Your task to perform on an android device: Search for vegetarian restaurants on Maps Image 0: 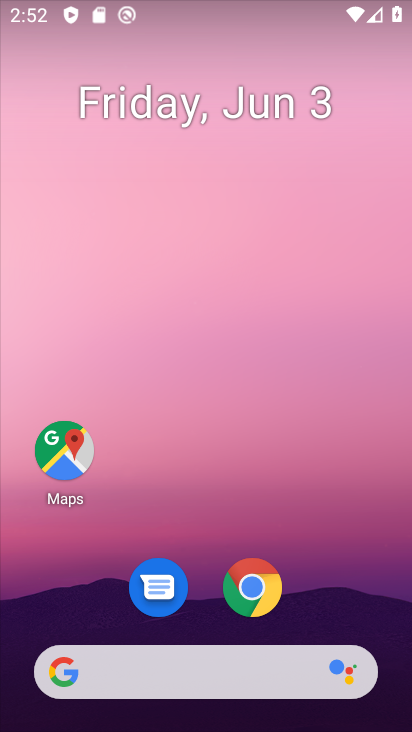
Step 0: drag from (212, 731) to (205, 82)
Your task to perform on an android device: Search for vegetarian restaurants on Maps Image 1: 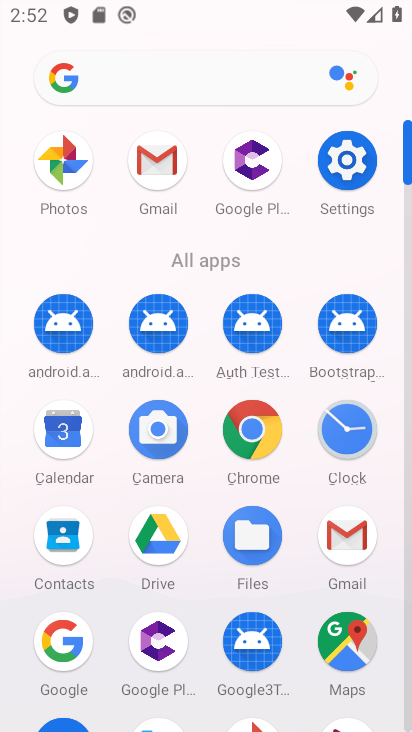
Step 1: click (356, 636)
Your task to perform on an android device: Search for vegetarian restaurants on Maps Image 2: 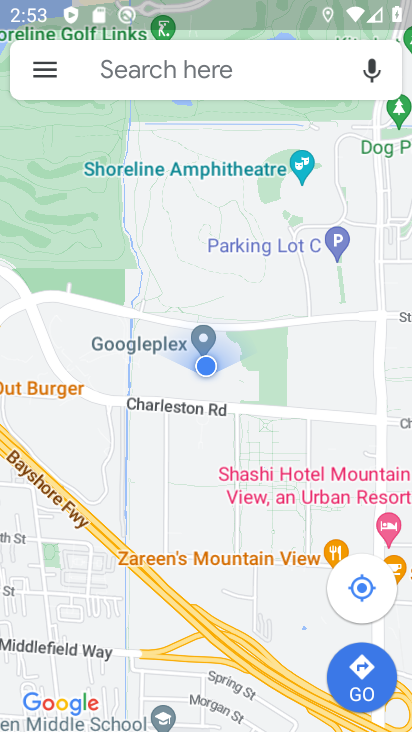
Step 2: click (225, 67)
Your task to perform on an android device: Search for vegetarian restaurants on Maps Image 3: 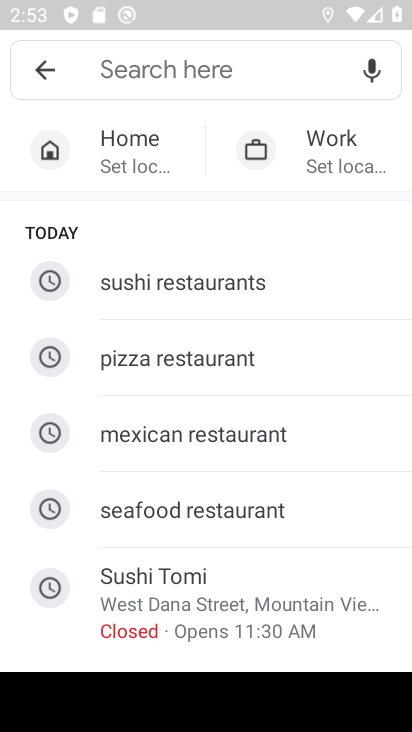
Step 3: type "vegetarian restaurants"
Your task to perform on an android device: Search for vegetarian restaurants on Maps Image 4: 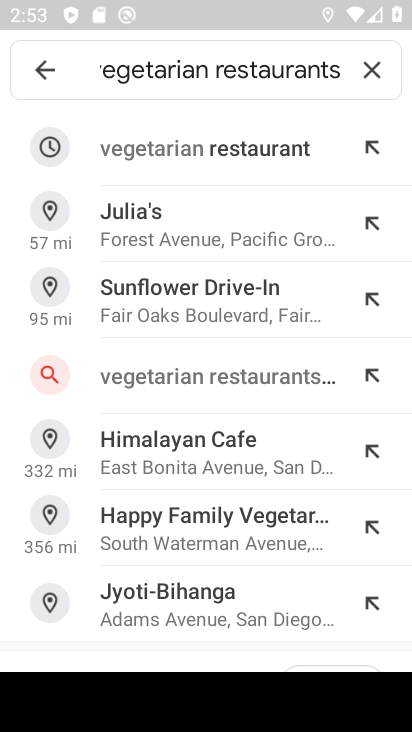
Step 4: click (206, 144)
Your task to perform on an android device: Search for vegetarian restaurants on Maps Image 5: 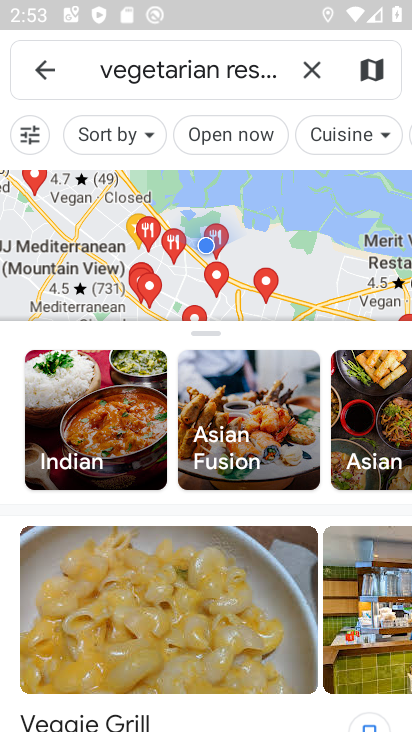
Step 5: task complete